Your task to perform on an android device: Open Google Image 0: 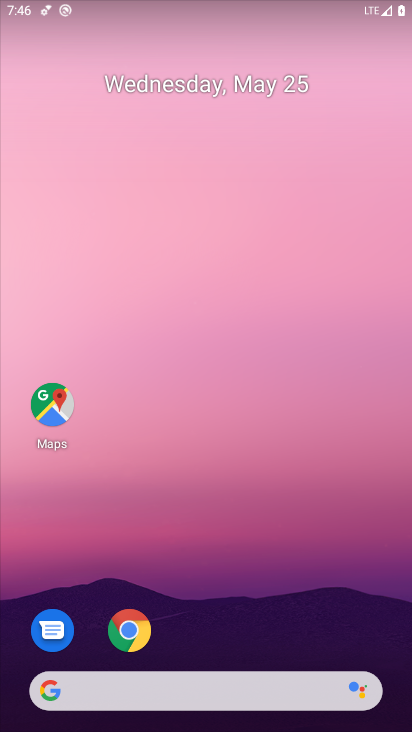
Step 0: drag from (214, 673) to (261, 173)
Your task to perform on an android device: Open Google Image 1: 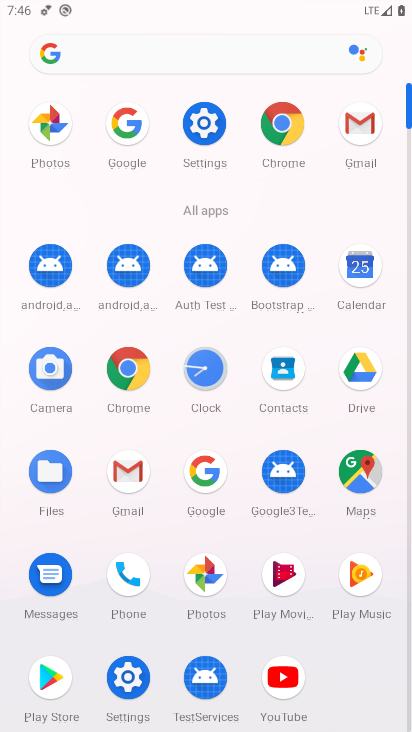
Step 1: click (204, 478)
Your task to perform on an android device: Open Google Image 2: 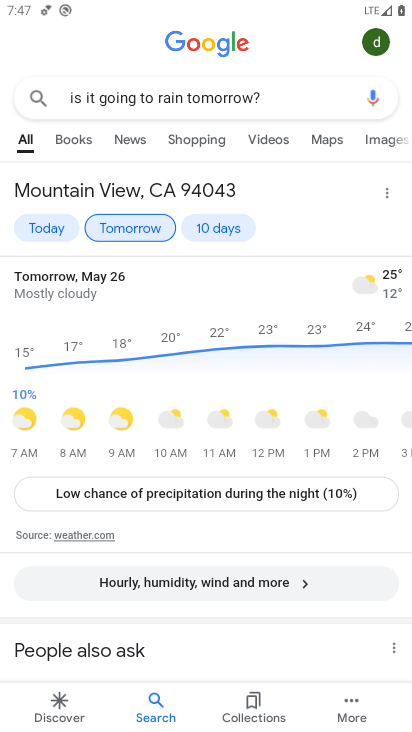
Step 2: task complete